Your task to perform on an android device: check the backup settings in the google photos Image 0: 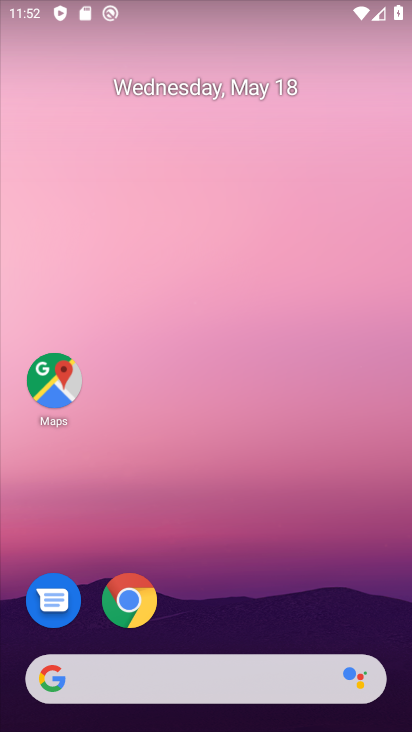
Step 0: drag from (220, 645) to (139, 61)
Your task to perform on an android device: check the backup settings in the google photos Image 1: 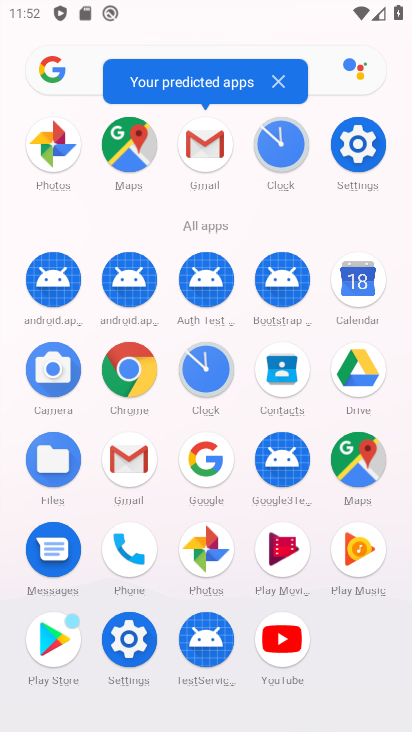
Step 1: click (372, 147)
Your task to perform on an android device: check the backup settings in the google photos Image 2: 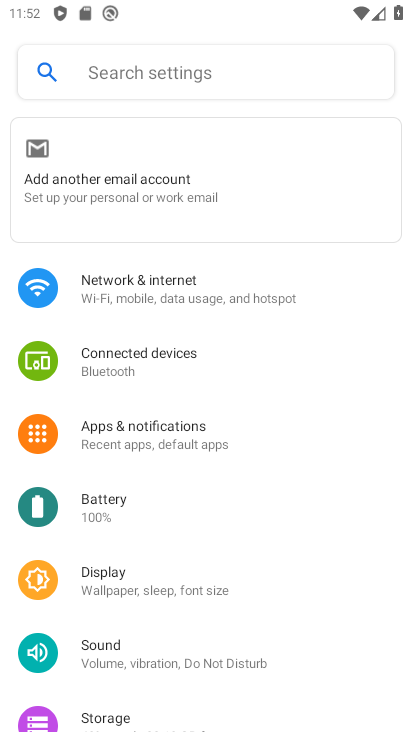
Step 2: press home button
Your task to perform on an android device: check the backup settings in the google photos Image 3: 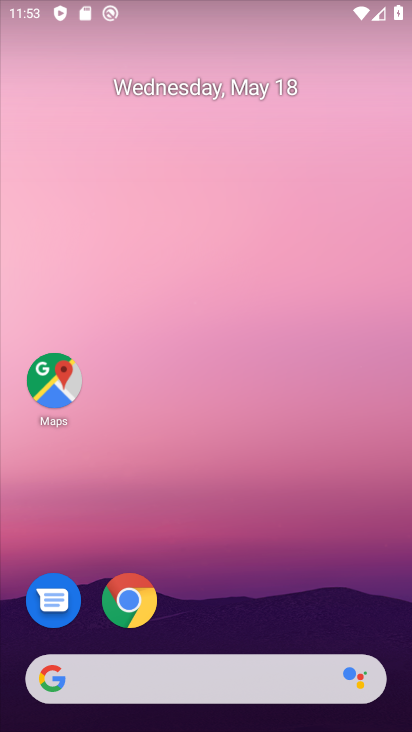
Step 3: drag from (198, 629) to (117, 66)
Your task to perform on an android device: check the backup settings in the google photos Image 4: 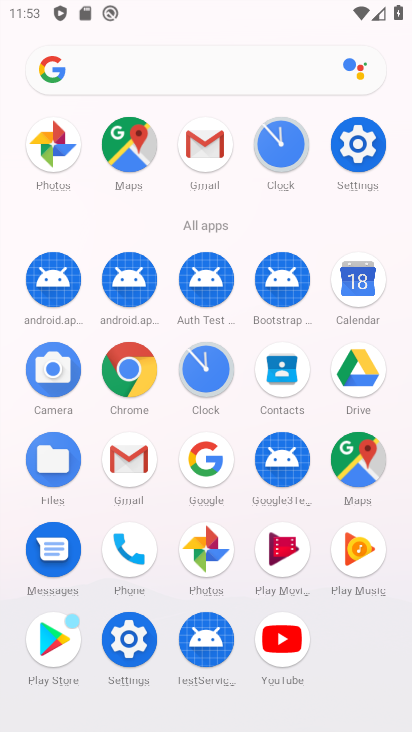
Step 4: click (210, 562)
Your task to perform on an android device: check the backup settings in the google photos Image 5: 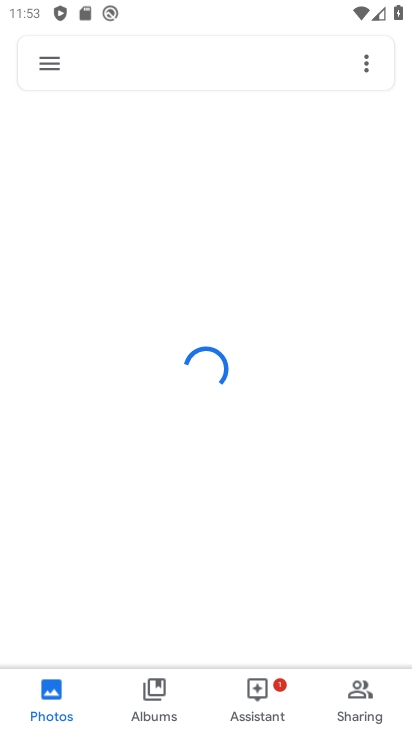
Step 5: click (53, 65)
Your task to perform on an android device: check the backup settings in the google photos Image 6: 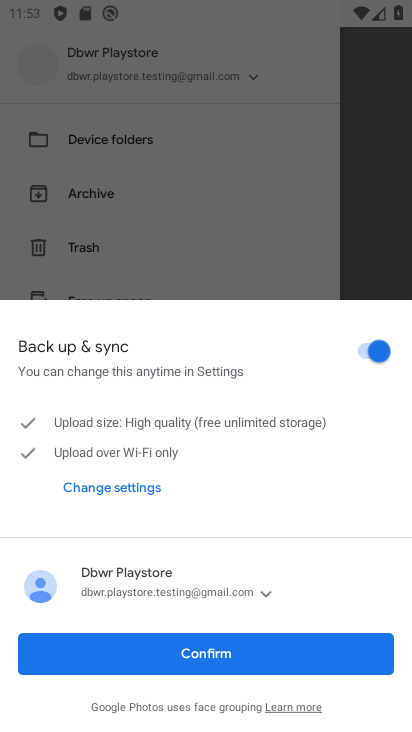
Step 6: click (219, 664)
Your task to perform on an android device: check the backup settings in the google photos Image 7: 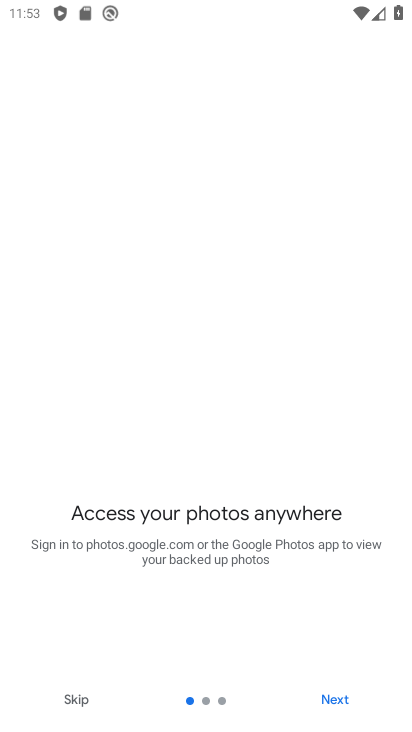
Step 7: click (338, 698)
Your task to perform on an android device: check the backup settings in the google photos Image 8: 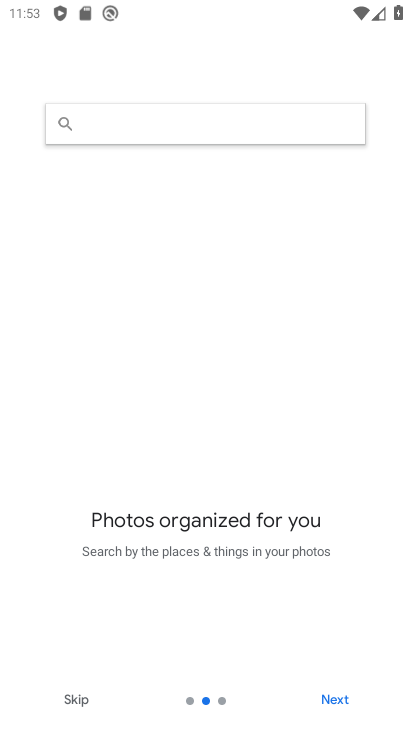
Step 8: click (339, 696)
Your task to perform on an android device: check the backup settings in the google photos Image 9: 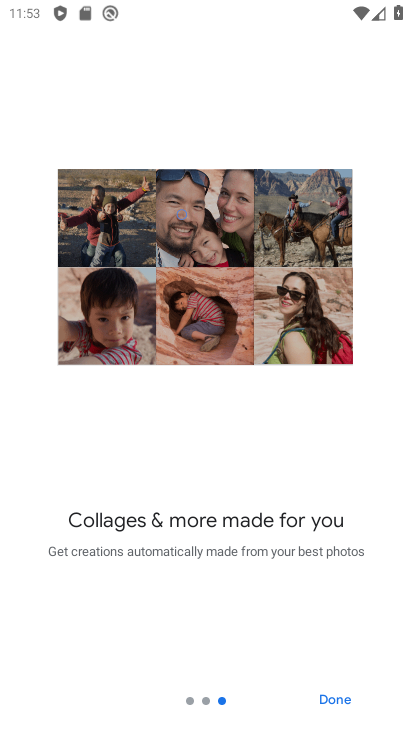
Step 9: click (340, 692)
Your task to perform on an android device: check the backup settings in the google photos Image 10: 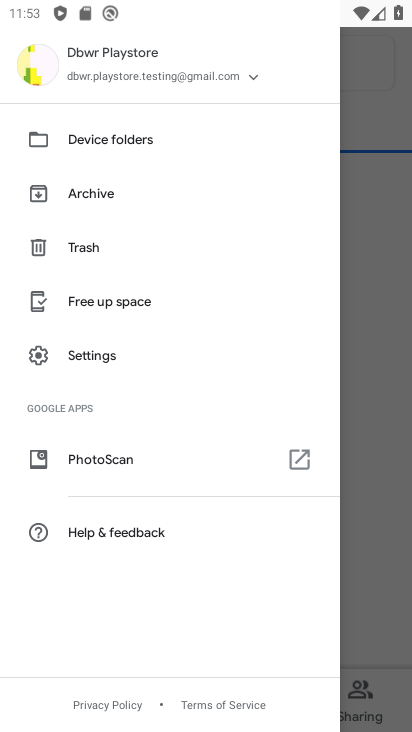
Step 10: click (75, 351)
Your task to perform on an android device: check the backup settings in the google photos Image 11: 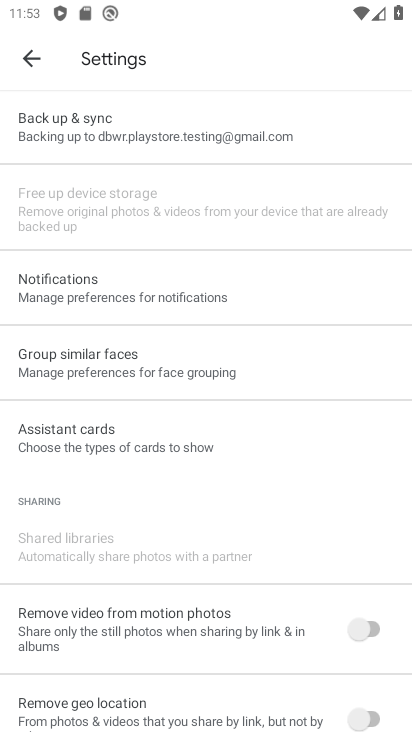
Step 11: click (24, 129)
Your task to perform on an android device: check the backup settings in the google photos Image 12: 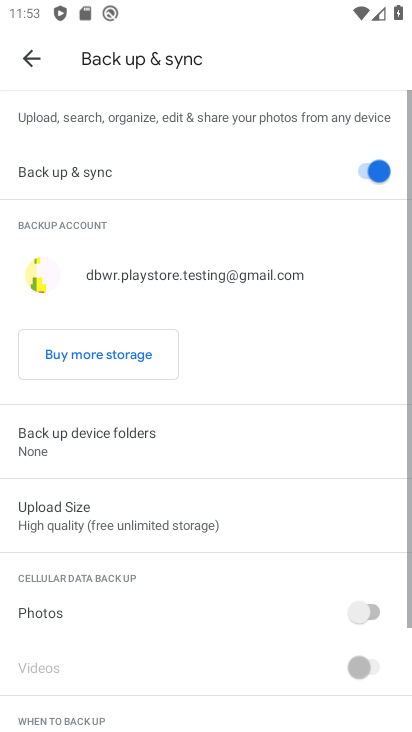
Step 12: task complete